Your task to perform on an android device: Check the weather Image 0: 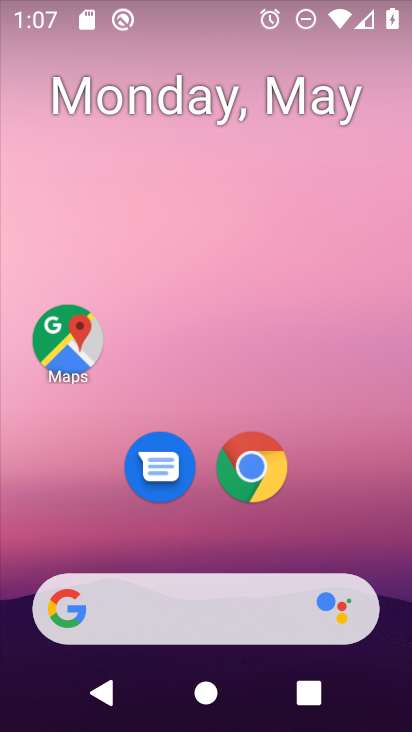
Step 0: click (128, 611)
Your task to perform on an android device: Check the weather Image 1: 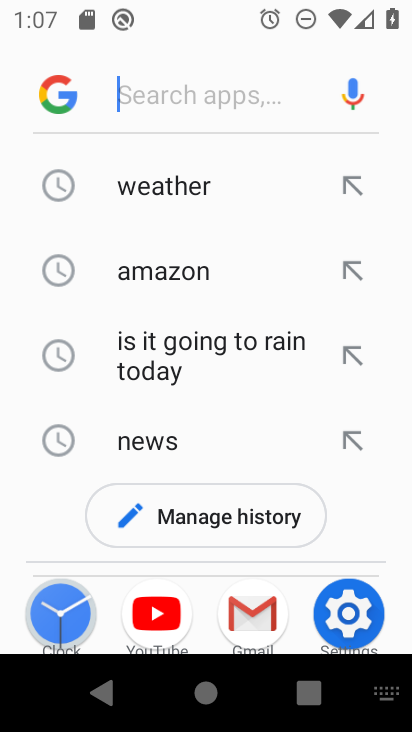
Step 1: click (160, 196)
Your task to perform on an android device: Check the weather Image 2: 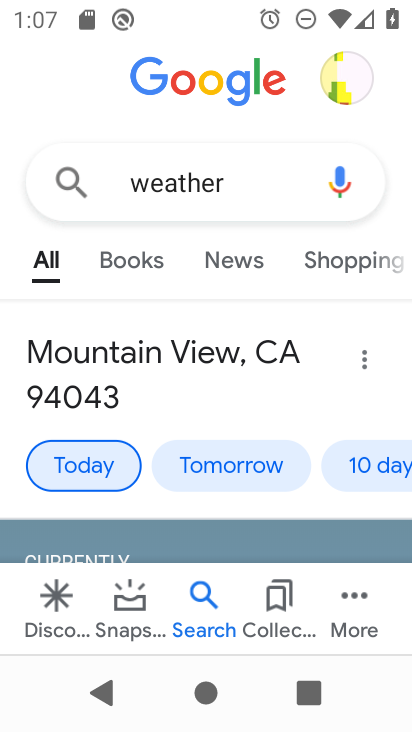
Step 2: task complete